Your task to perform on an android device: toggle show notifications on the lock screen Image 0: 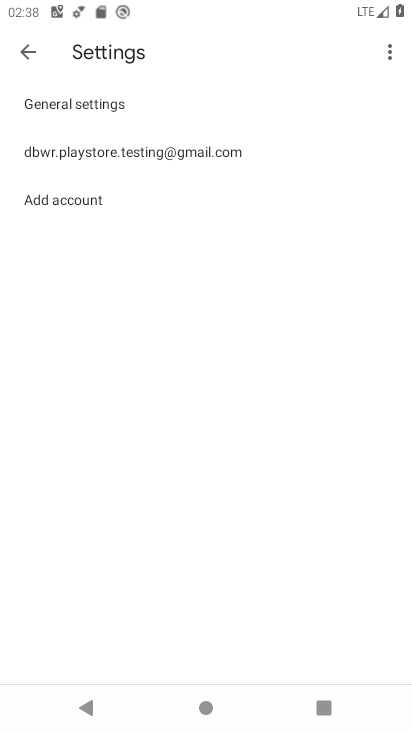
Step 0: press home button
Your task to perform on an android device: toggle show notifications on the lock screen Image 1: 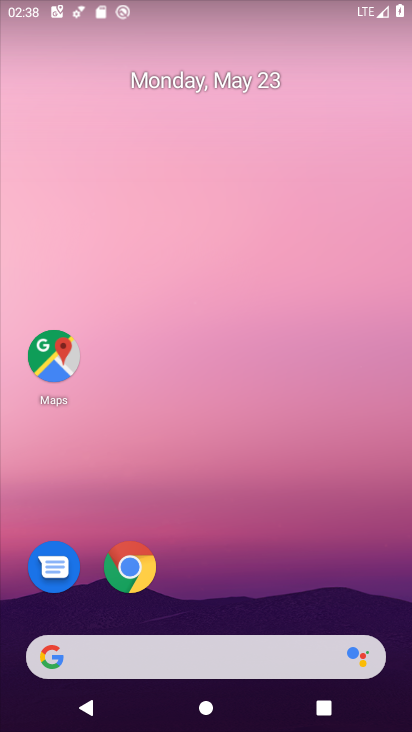
Step 1: drag from (318, 550) to (234, 122)
Your task to perform on an android device: toggle show notifications on the lock screen Image 2: 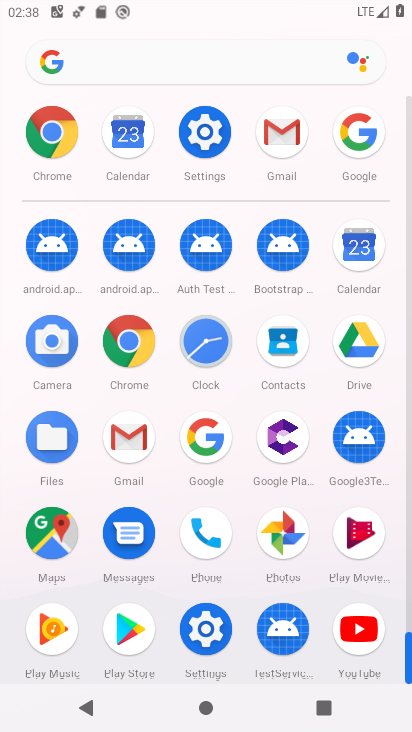
Step 2: click (195, 626)
Your task to perform on an android device: toggle show notifications on the lock screen Image 3: 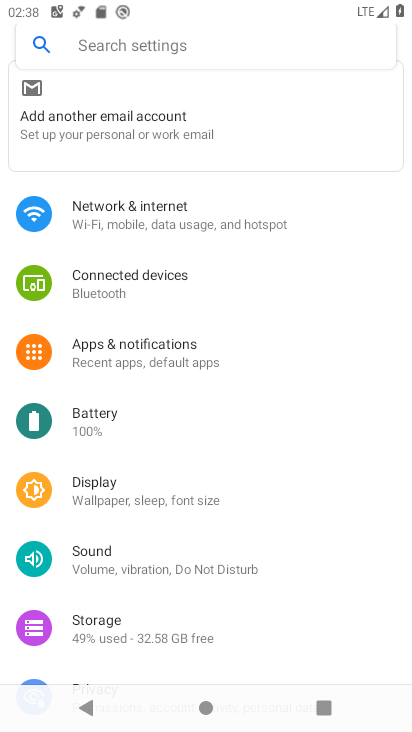
Step 3: click (204, 349)
Your task to perform on an android device: toggle show notifications on the lock screen Image 4: 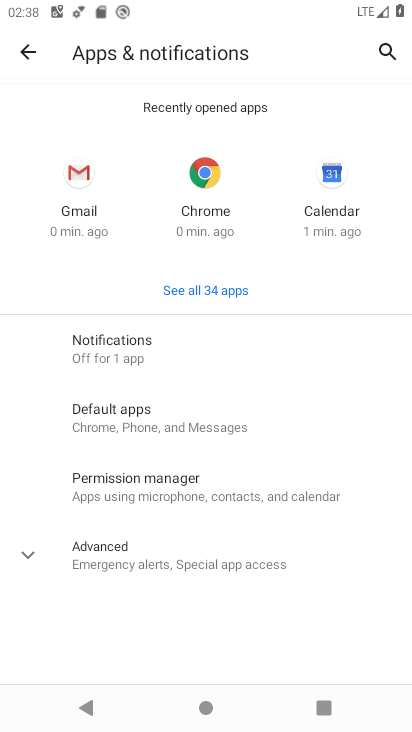
Step 4: click (156, 358)
Your task to perform on an android device: toggle show notifications on the lock screen Image 5: 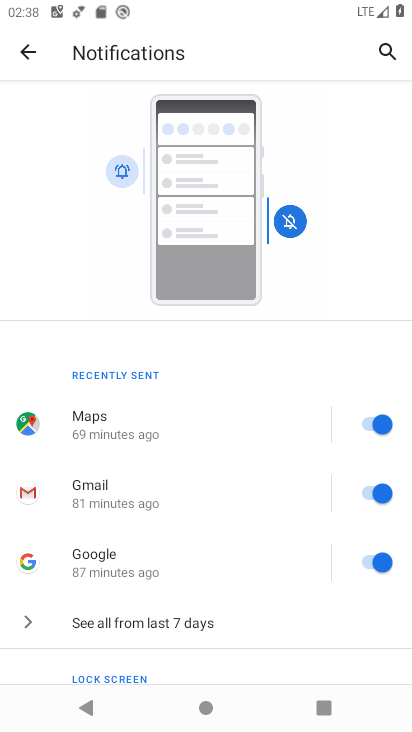
Step 5: drag from (181, 634) to (211, 256)
Your task to perform on an android device: toggle show notifications on the lock screen Image 6: 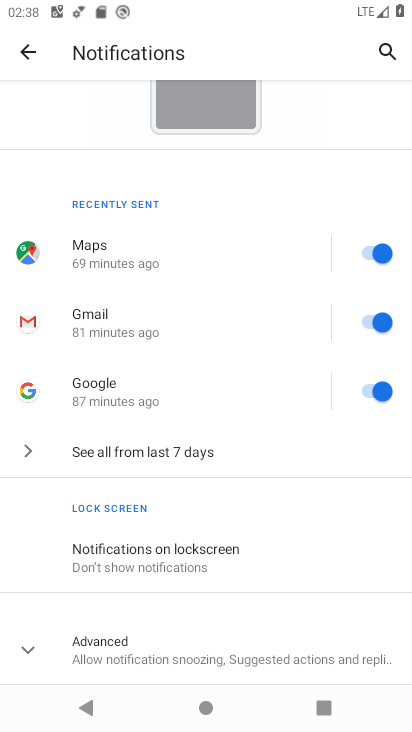
Step 6: click (143, 562)
Your task to perform on an android device: toggle show notifications on the lock screen Image 7: 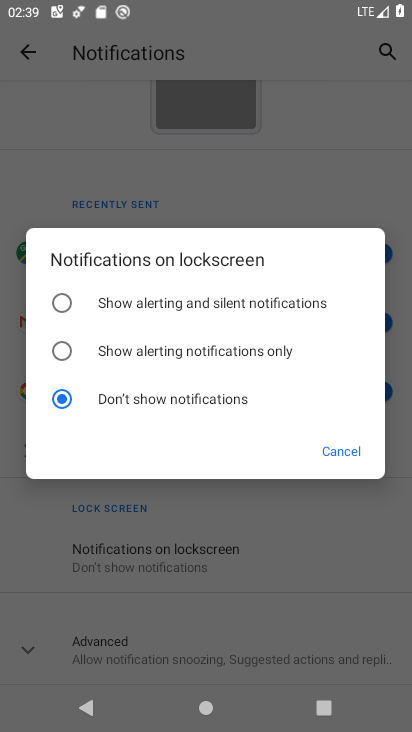
Step 7: click (130, 313)
Your task to perform on an android device: toggle show notifications on the lock screen Image 8: 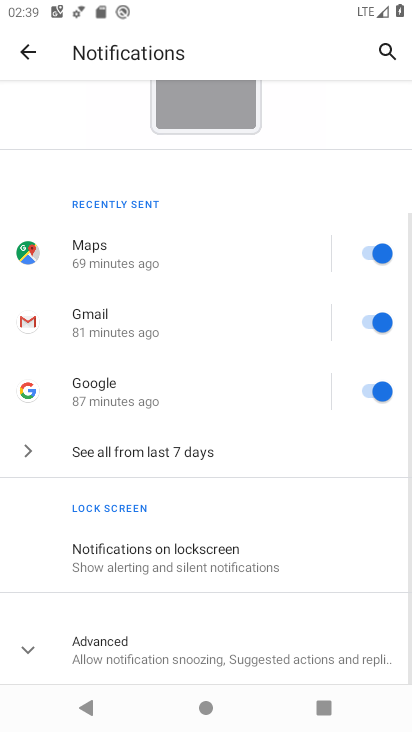
Step 8: task complete